Your task to perform on an android device: Open network settings Image 0: 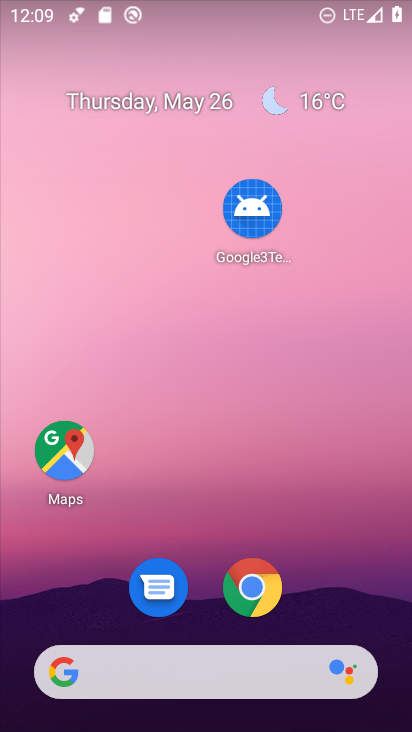
Step 0: drag from (234, 679) to (249, 13)
Your task to perform on an android device: Open network settings Image 1: 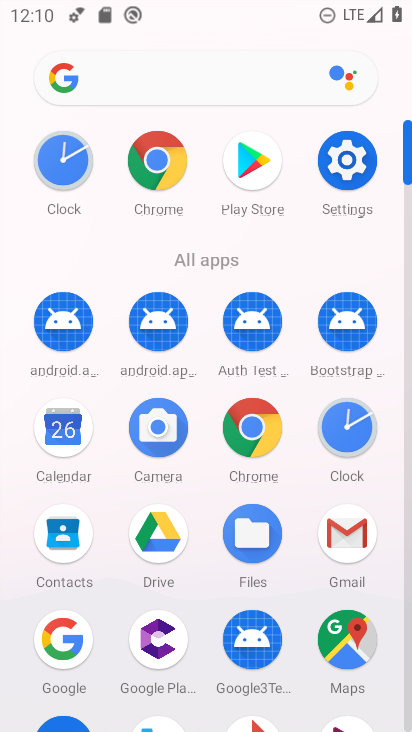
Step 1: click (352, 163)
Your task to perform on an android device: Open network settings Image 2: 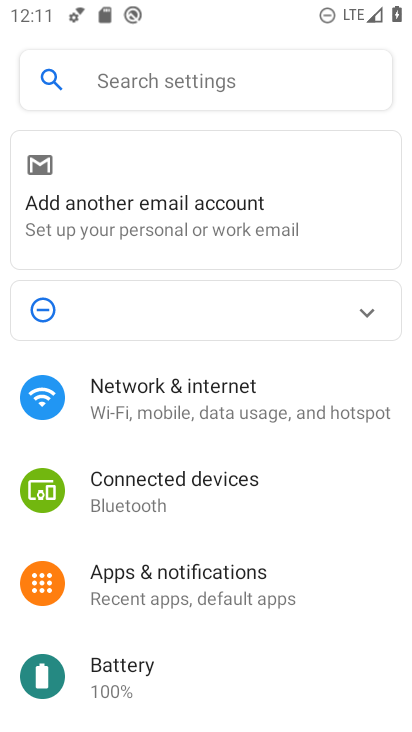
Step 2: click (198, 405)
Your task to perform on an android device: Open network settings Image 3: 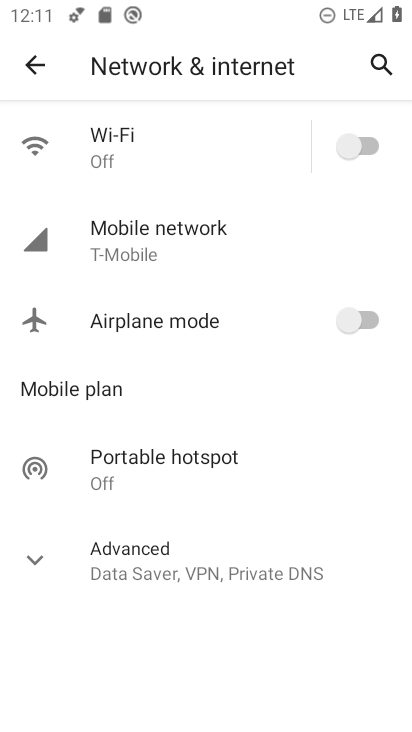
Step 3: task complete